Your task to perform on an android device: manage bookmarks in the chrome app Image 0: 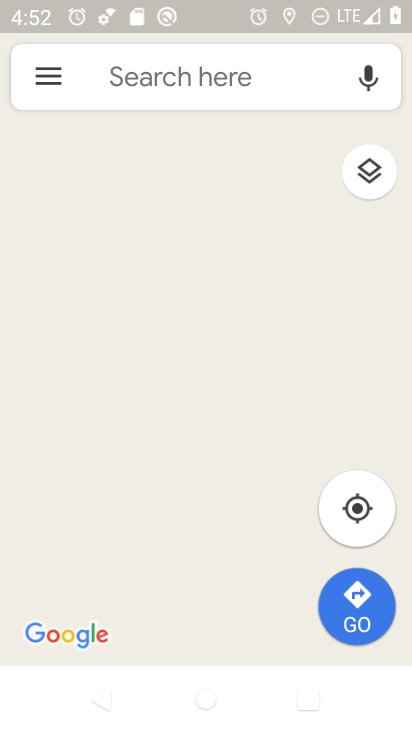
Step 0: press back button
Your task to perform on an android device: manage bookmarks in the chrome app Image 1: 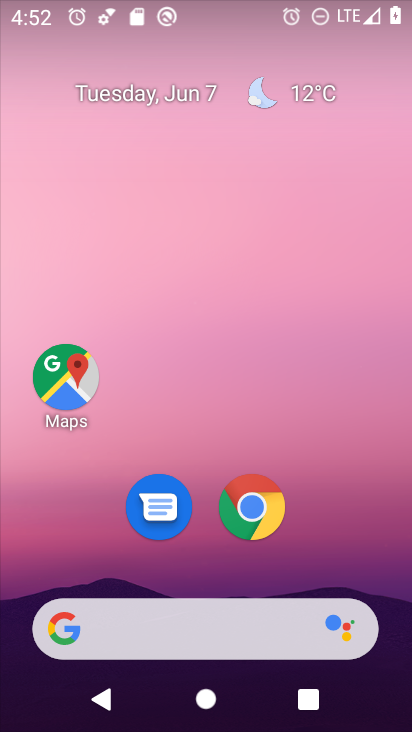
Step 1: drag from (369, 568) to (307, 38)
Your task to perform on an android device: manage bookmarks in the chrome app Image 2: 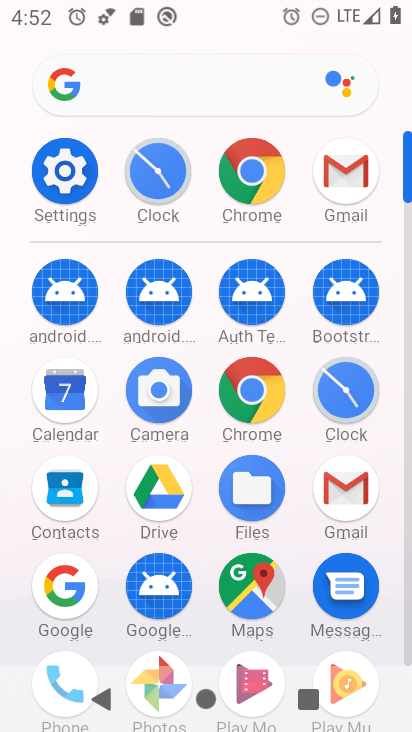
Step 2: drag from (19, 581) to (13, 238)
Your task to perform on an android device: manage bookmarks in the chrome app Image 3: 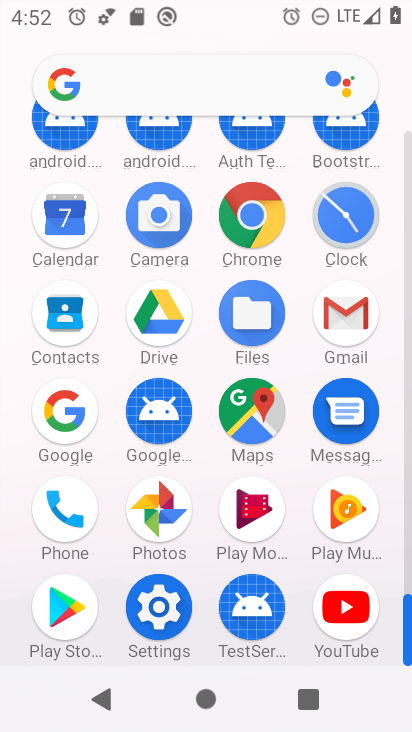
Step 3: click (248, 211)
Your task to perform on an android device: manage bookmarks in the chrome app Image 4: 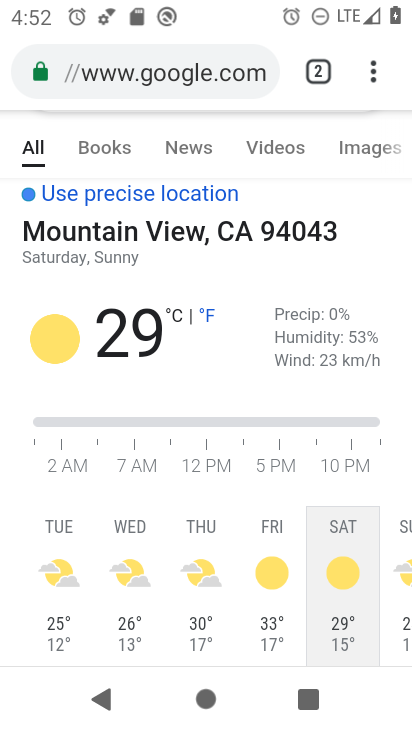
Step 4: drag from (367, 66) to (181, 268)
Your task to perform on an android device: manage bookmarks in the chrome app Image 5: 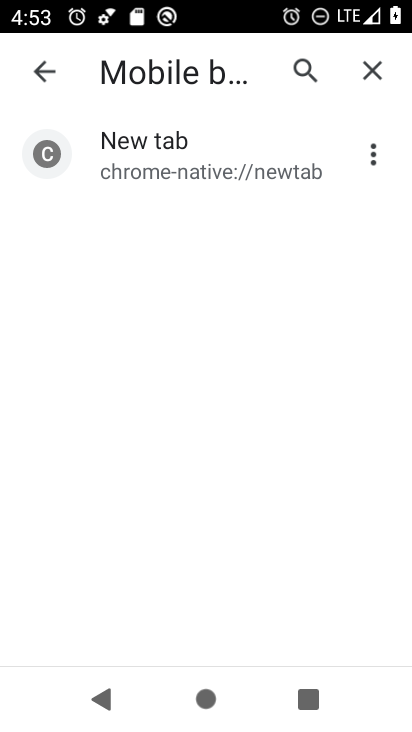
Step 5: click (369, 145)
Your task to perform on an android device: manage bookmarks in the chrome app Image 6: 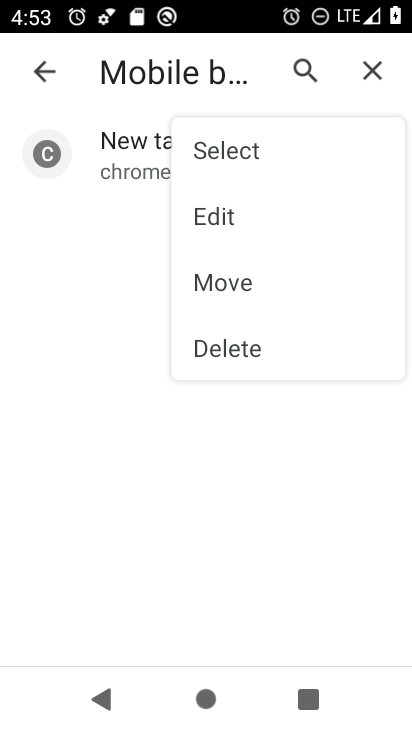
Step 6: click (247, 347)
Your task to perform on an android device: manage bookmarks in the chrome app Image 7: 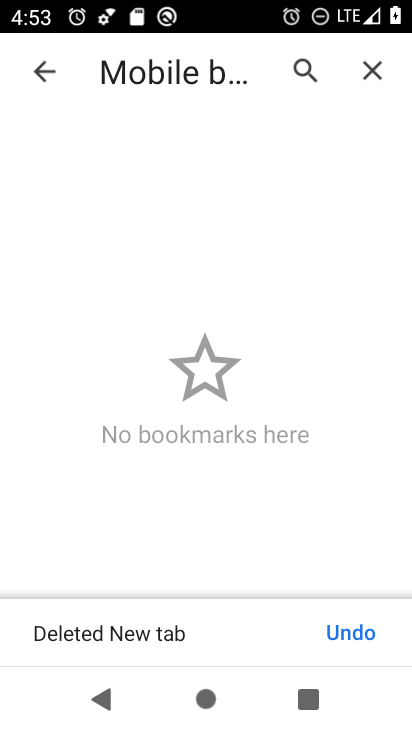
Step 7: task complete